Your task to perform on an android device: Open Youtube and go to "Your channel" Image 0: 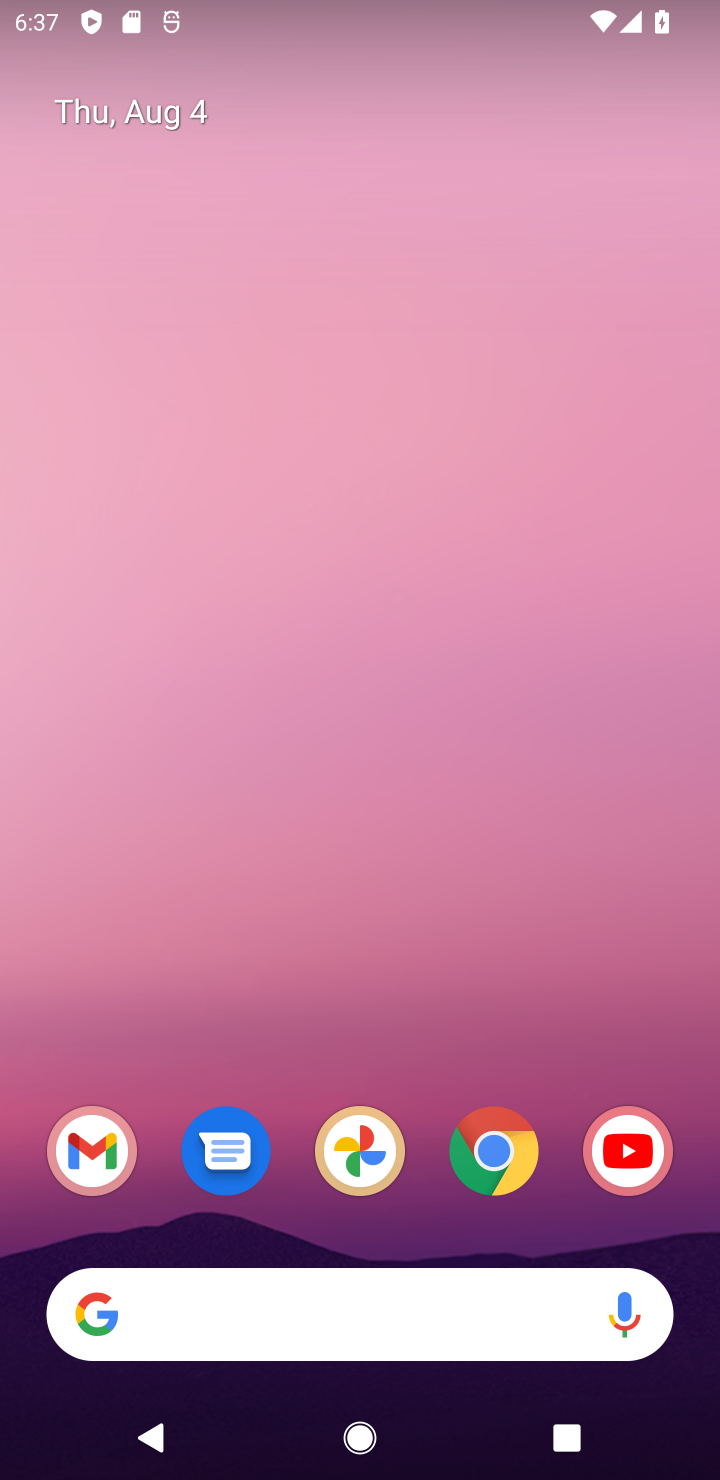
Step 0: drag from (381, 1226) to (262, 156)
Your task to perform on an android device: Open Youtube and go to "Your channel" Image 1: 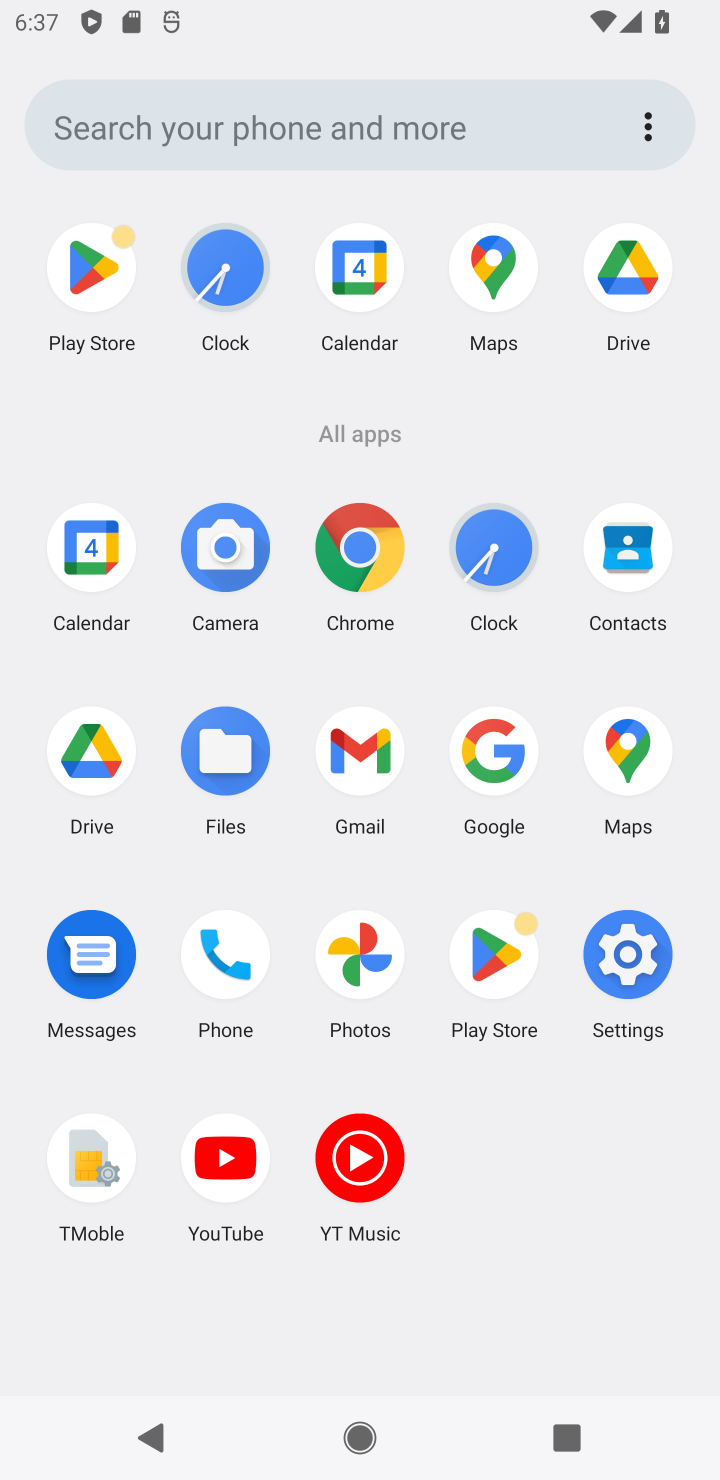
Step 1: click (228, 1207)
Your task to perform on an android device: Open Youtube and go to "Your channel" Image 2: 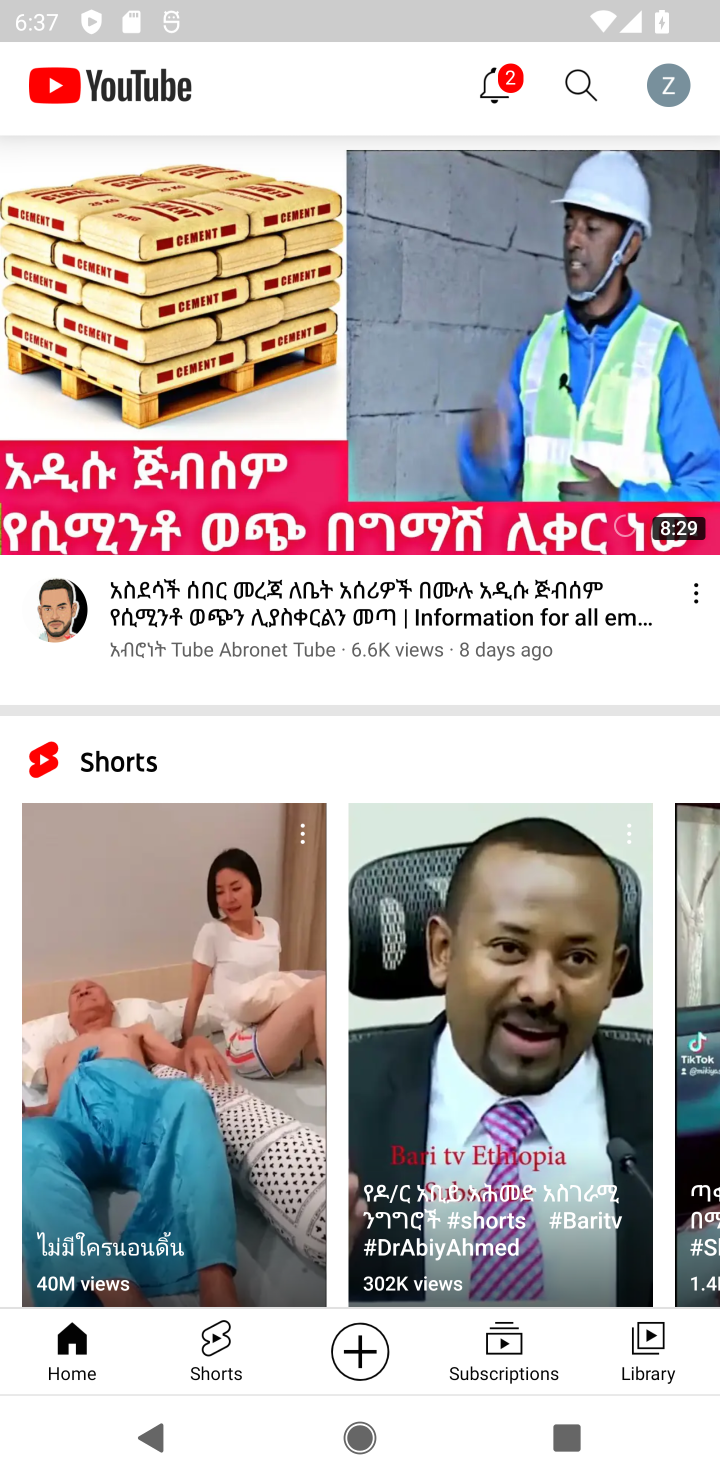
Step 2: click (680, 87)
Your task to perform on an android device: Open Youtube and go to "Your channel" Image 3: 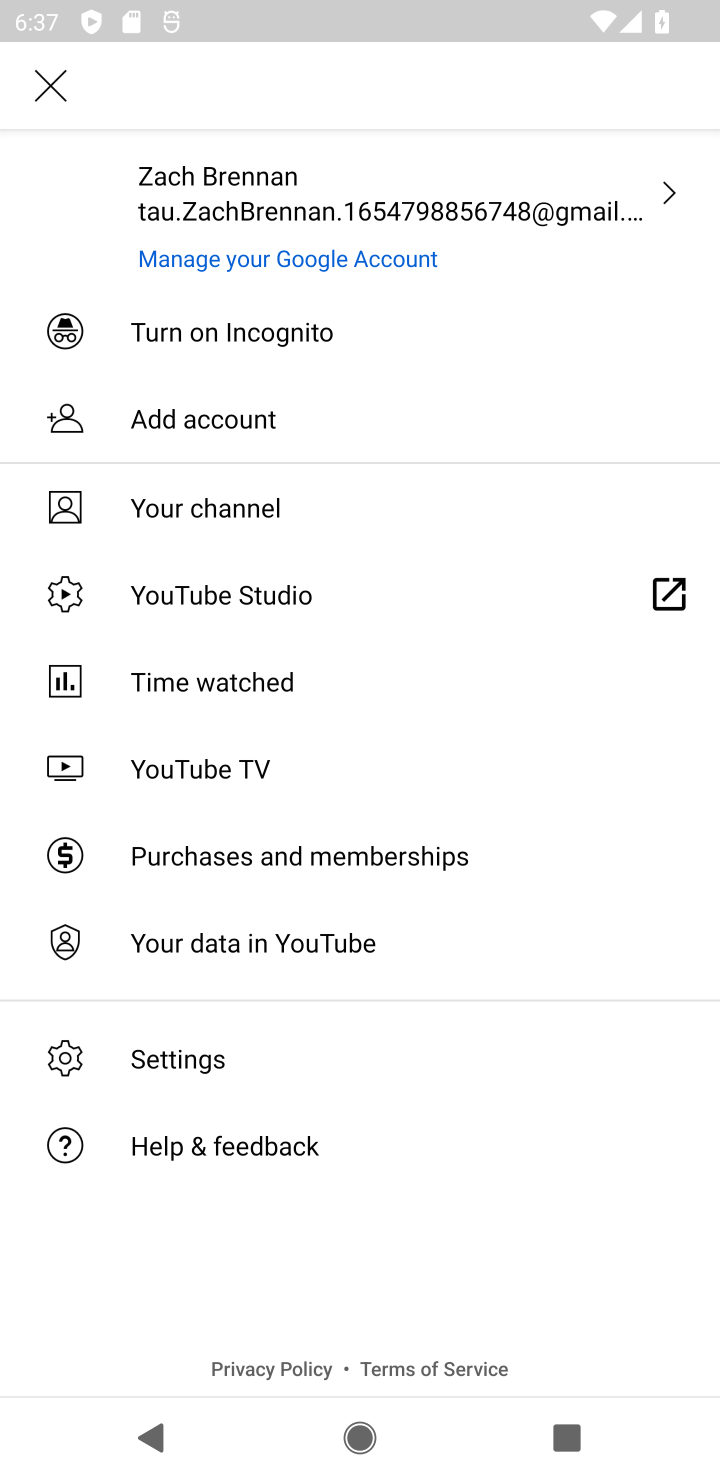
Step 3: click (663, 83)
Your task to perform on an android device: Open Youtube and go to "Your channel" Image 4: 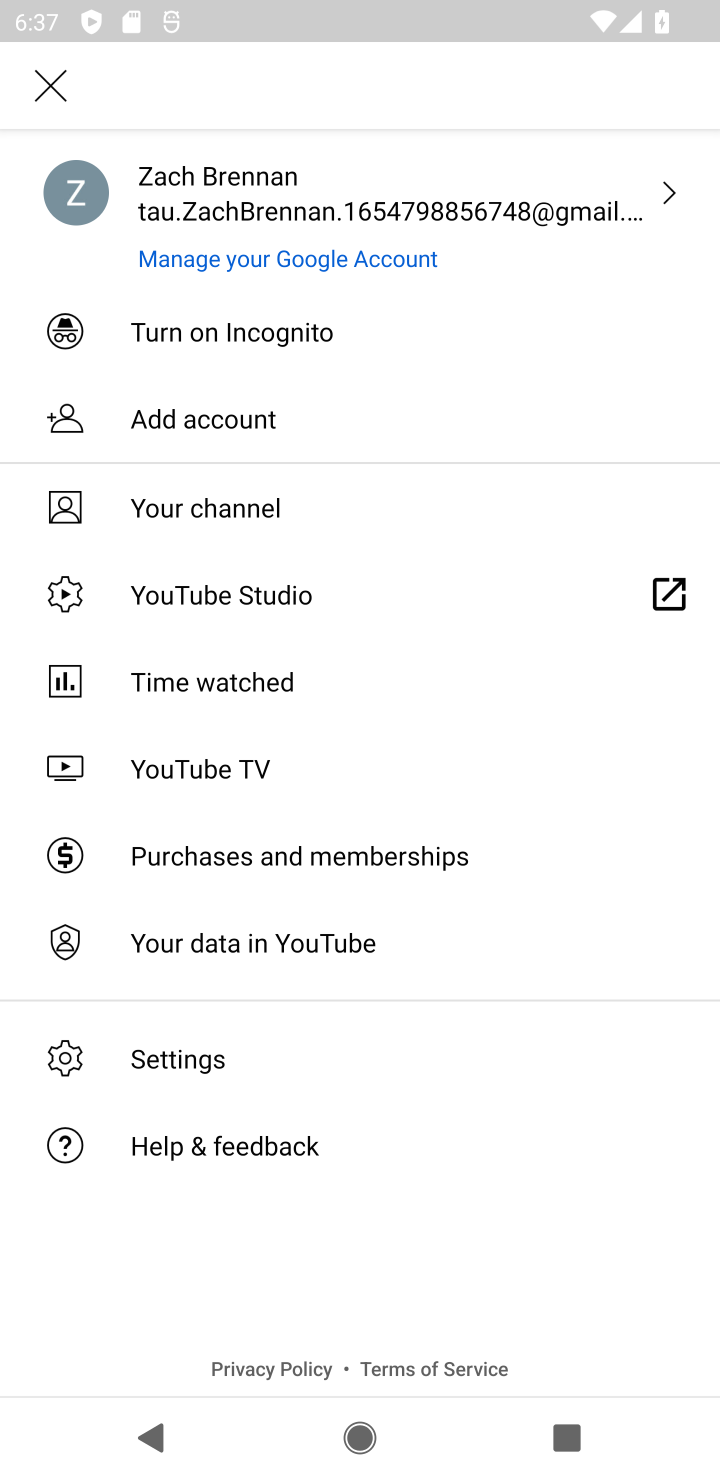
Step 4: click (244, 510)
Your task to perform on an android device: Open Youtube and go to "Your channel" Image 5: 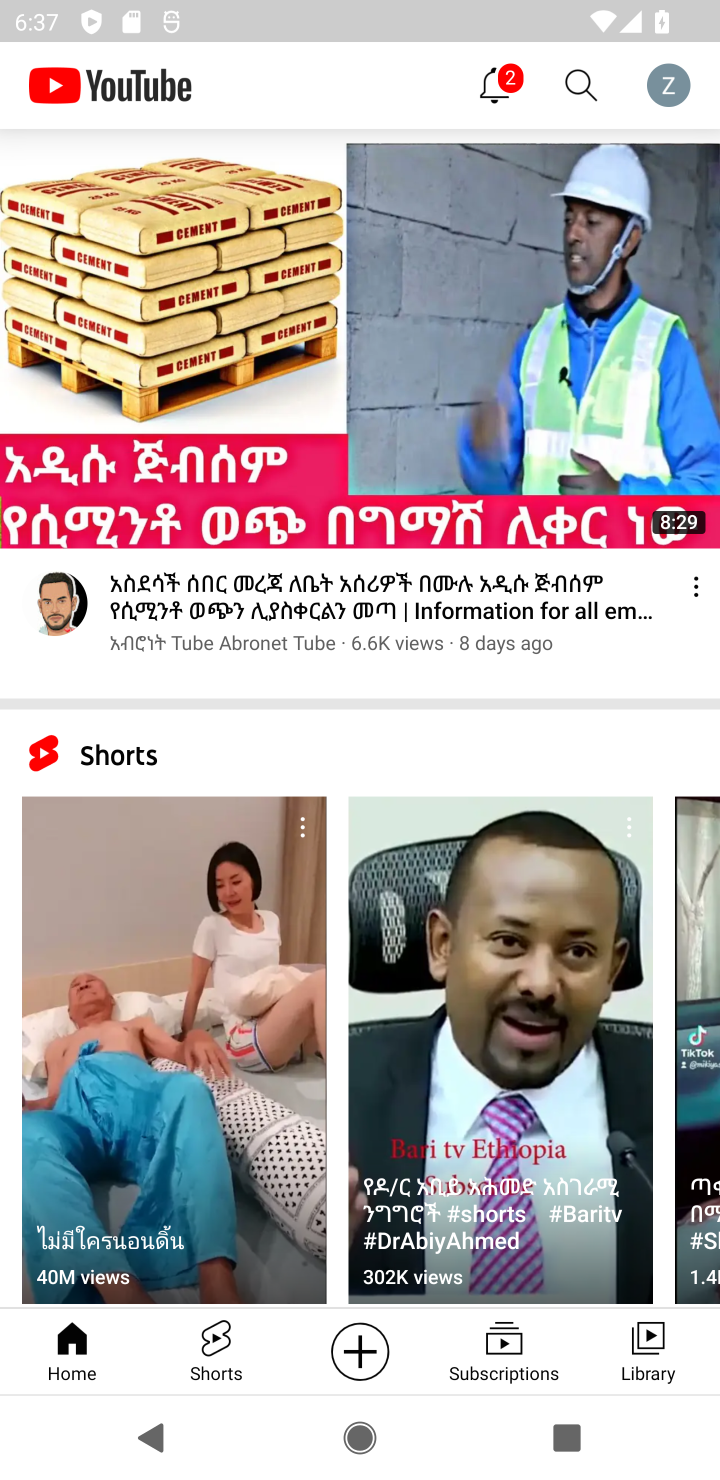
Step 5: click (677, 88)
Your task to perform on an android device: Open Youtube and go to "Your channel" Image 6: 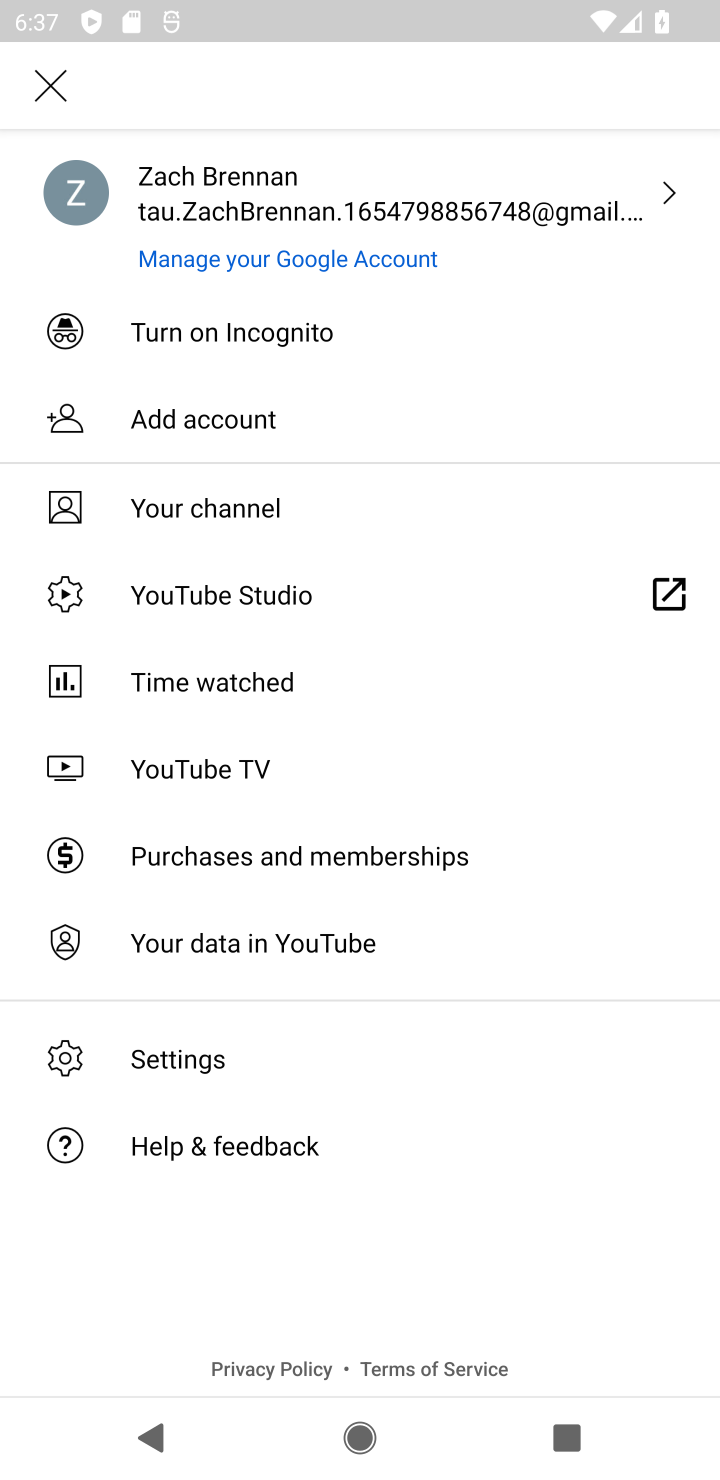
Step 6: click (247, 528)
Your task to perform on an android device: Open Youtube and go to "Your channel" Image 7: 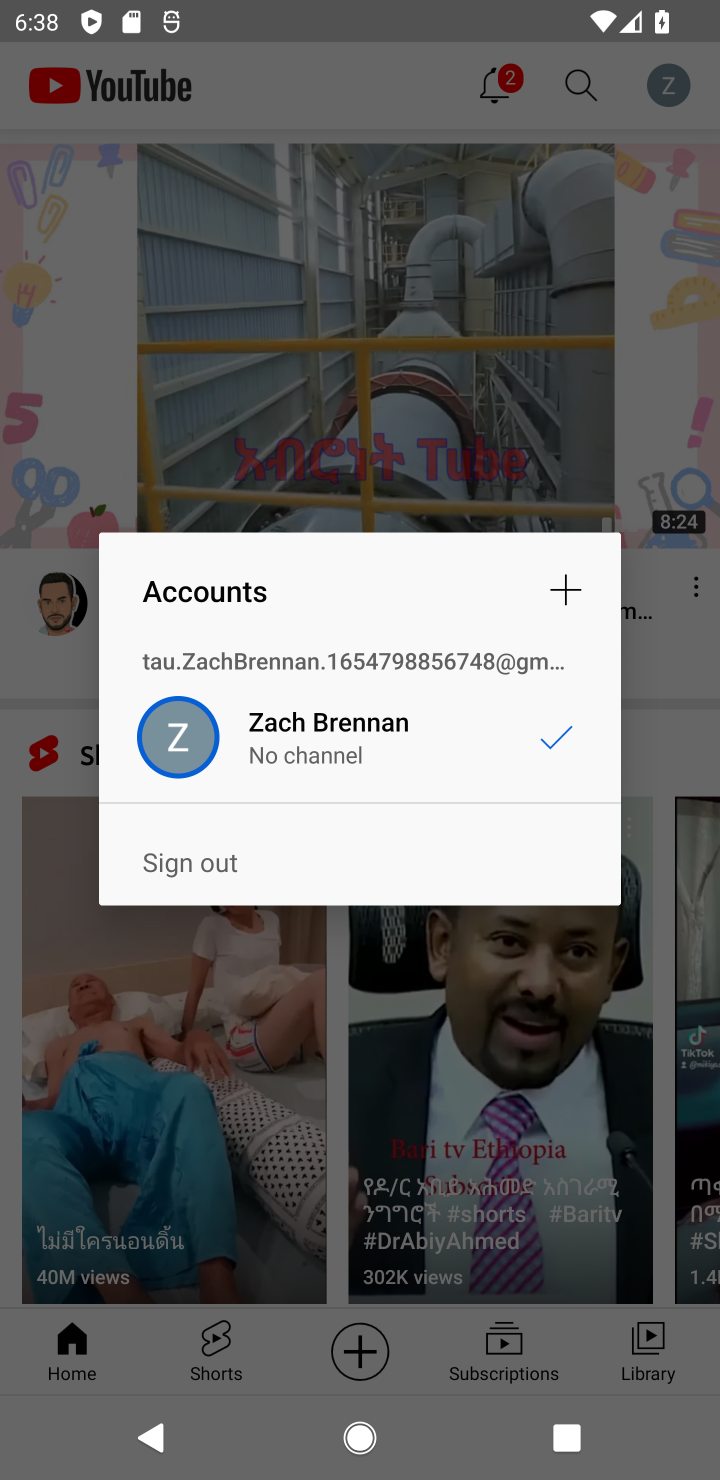
Step 7: click (315, 762)
Your task to perform on an android device: Open Youtube and go to "Your channel" Image 8: 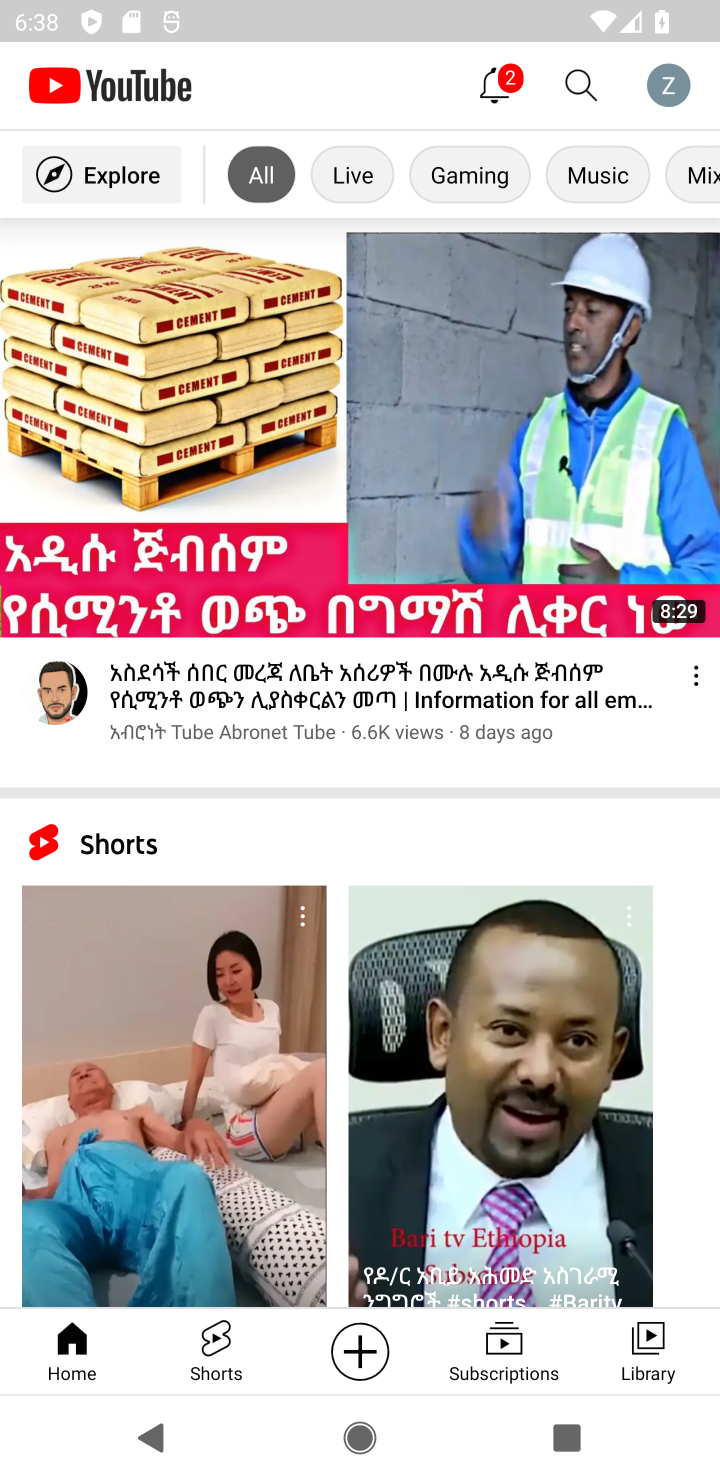
Step 8: task complete